Your task to perform on an android device: Open the Play Movies app and select the watchlist tab. Image 0: 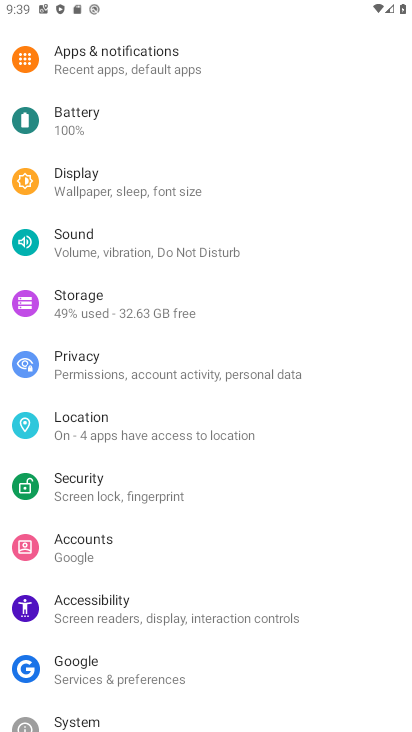
Step 0: press home button
Your task to perform on an android device: Open the Play Movies app and select the watchlist tab. Image 1: 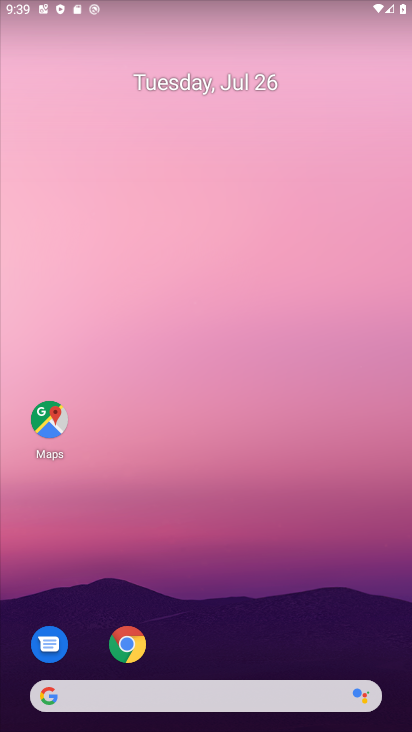
Step 1: drag from (233, 659) to (256, 82)
Your task to perform on an android device: Open the Play Movies app and select the watchlist tab. Image 2: 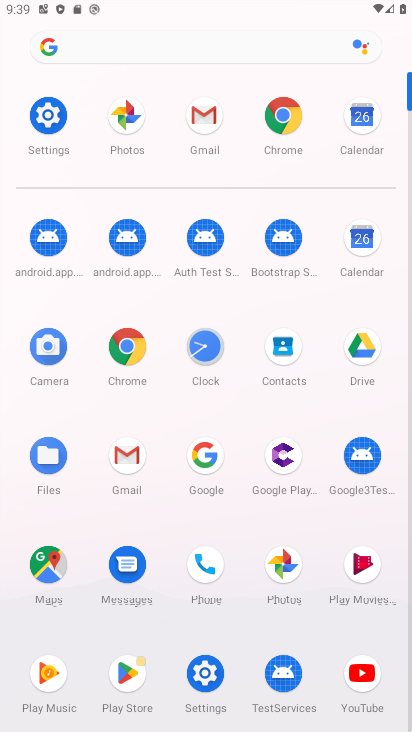
Step 2: click (358, 574)
Your task to perform on an android device: Open the Play Movies app and select the watchlist tab. Image 3: 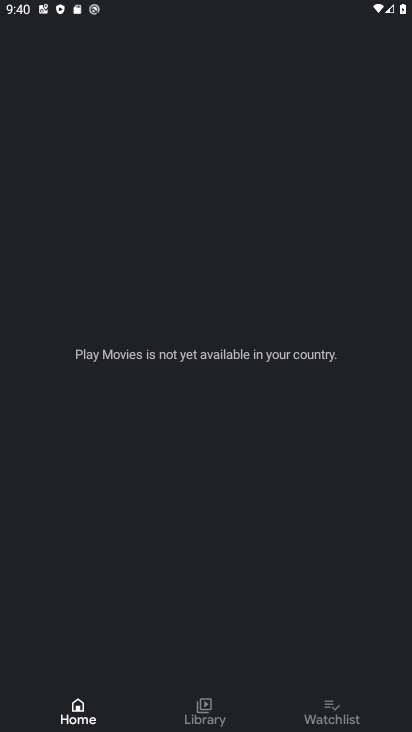
Step 3: click (333, 711)
Your task to perform on an android device: Open the Play Movies app and select the watchlist tab. Image 4: 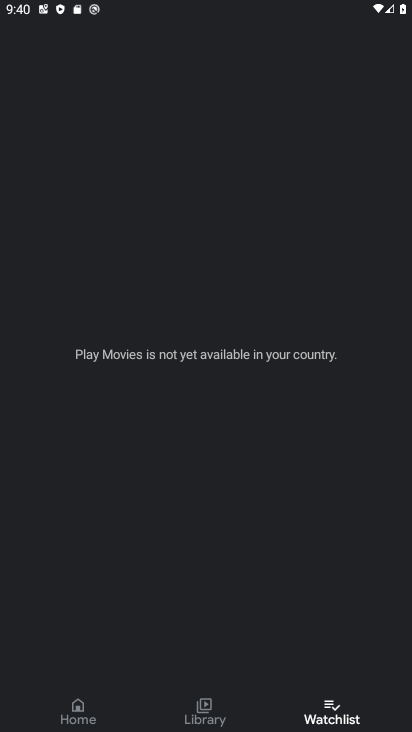
Step 4: task complete